Your task to perform on an android device: see tabs open on other devices in the chrome app Image 0: 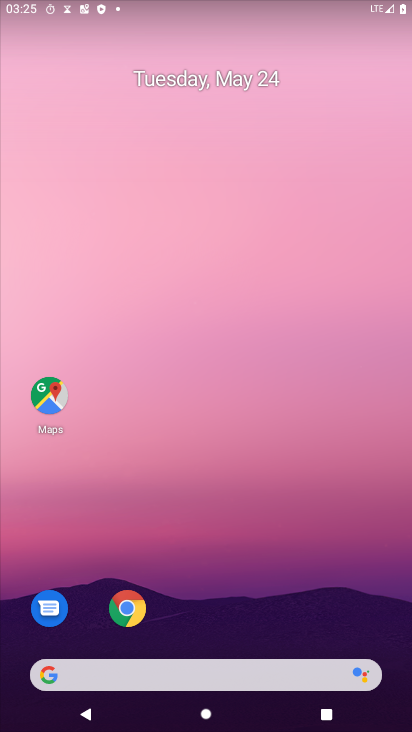
Step 0: drag from (253, 617) to (186, 188)
Your task to perform on an android device: see tabs open on other devices in the chrome app Image 1: 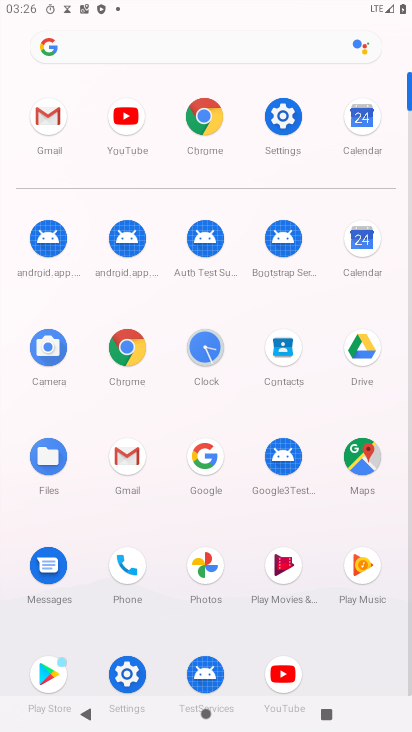
Step 1: click (214, 111)
Your task to perform on an android device: see tabs open on other devices in the chrome app Image 2: 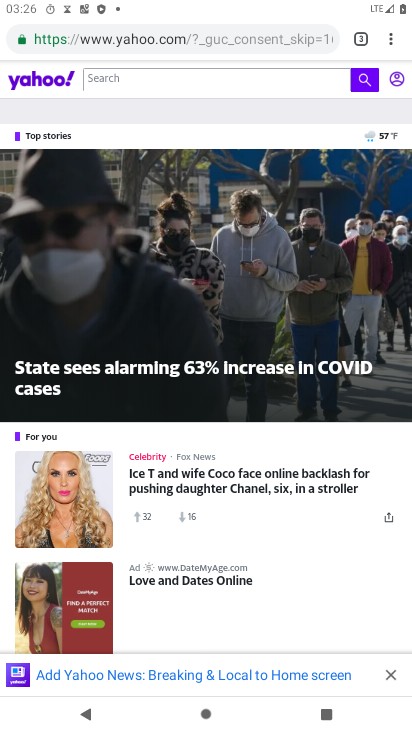
Step 2: click (391, 45)
Your task to perform on an android device: see tabs open on other devices in the chrome app Image 3: 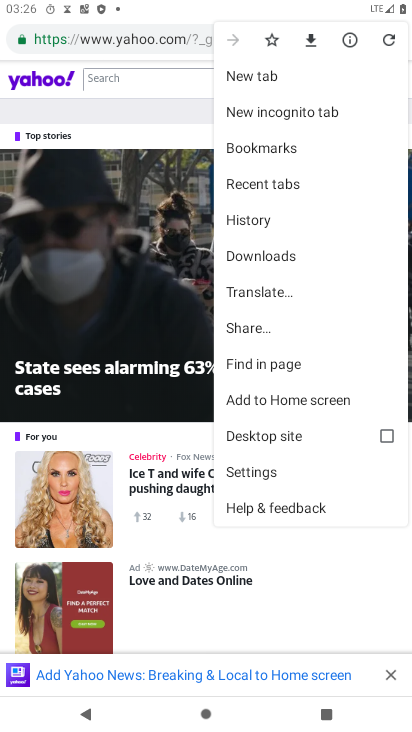
Step 3: click (334, 190)
Your task to perform on an android device: see tabs open on other devices in the chrome app Image 4: 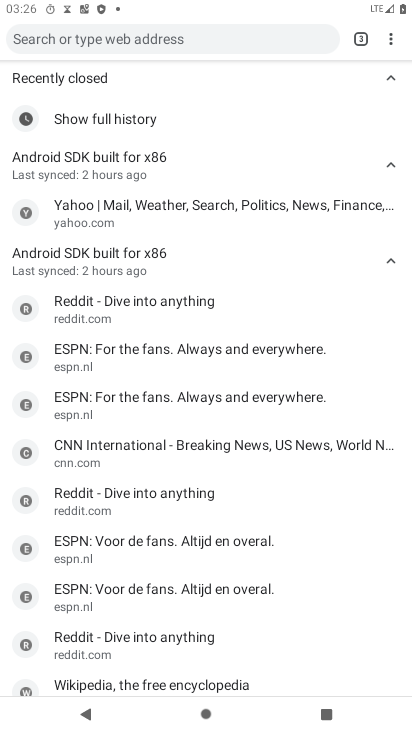
Step 4: task complete